Your task to perform on an android device: open app "Google Play Music" Image 0: 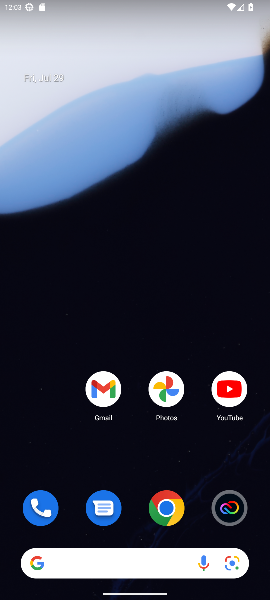
Step 0: drag from (174, 560) to (181, 80)
Your task to perform on an android device: open app "Google Play Music" Image 1: 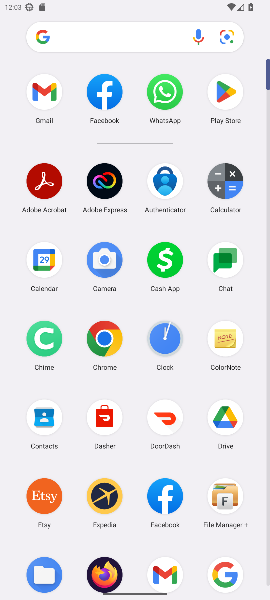
Step 1: click (225, 88)
Your task to perform on an android device: open app "Google Play Music" Image 2: 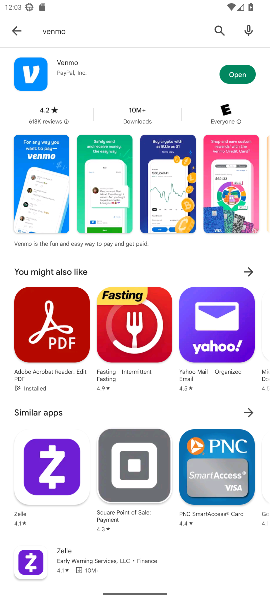
Step 2: click (216, 28)
Your task to perform on an android device: open app "Google Play Music" Image 3: 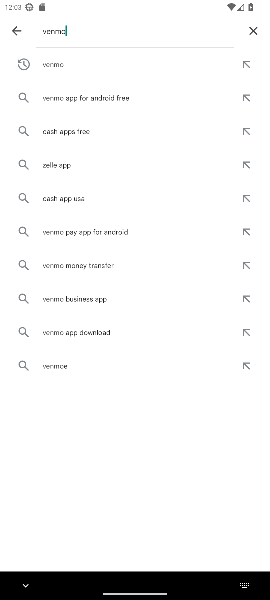
Step 3: click (249, 27)
Your task to perform on an android device: open app "Google Play Music" Image 4: 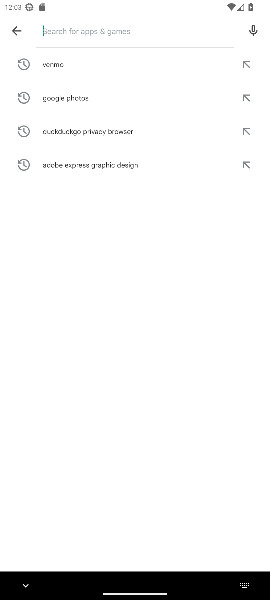
Step 4: type "google play music"
Your task to perform on an android device: open app "Google Play Music" Image 5: 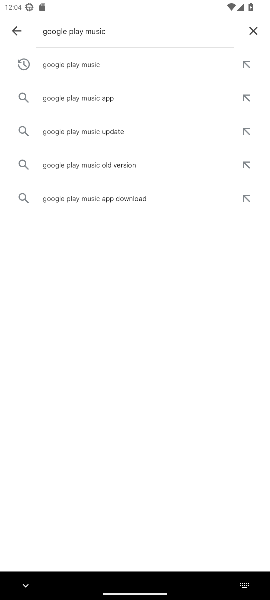
Step 5: click (68, 62)
Your task to perform on an android device: open app "Google Play Music" Image 6: 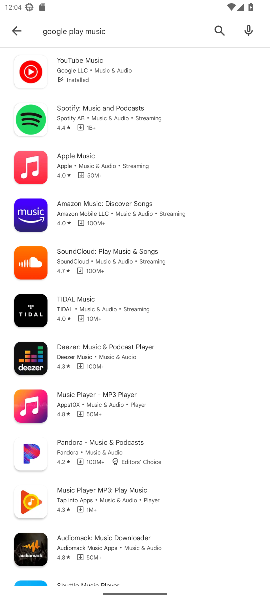
Step 6: click (119, 67)
Your task to perform on an android device: open app "Google Play Music" Image 7: 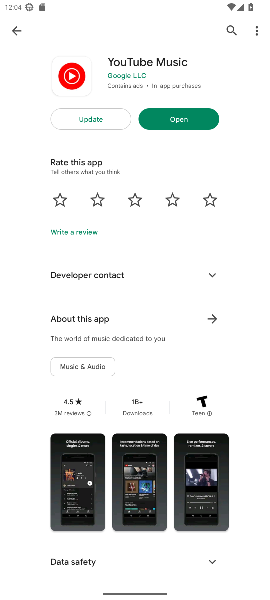
Step 7: task complete